Your task to perform on an android device: open sync settings in chrome Image 0: 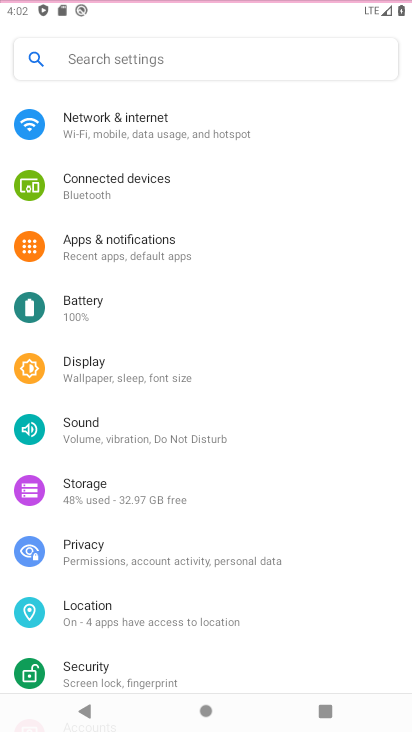
Step 0: drag from (239, 582) to (165, 80)
Your task to perform on an android device: open sync settings in chrome Image 1: 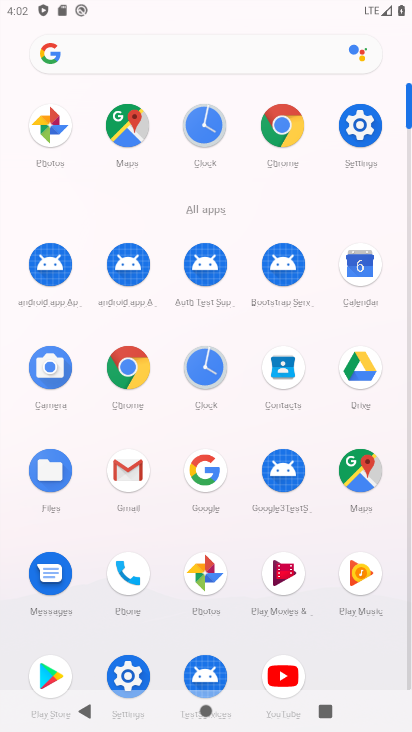
Step 1: click (280, 123)
Your task to perform on an android device: open sync settings in chrome Image 2: 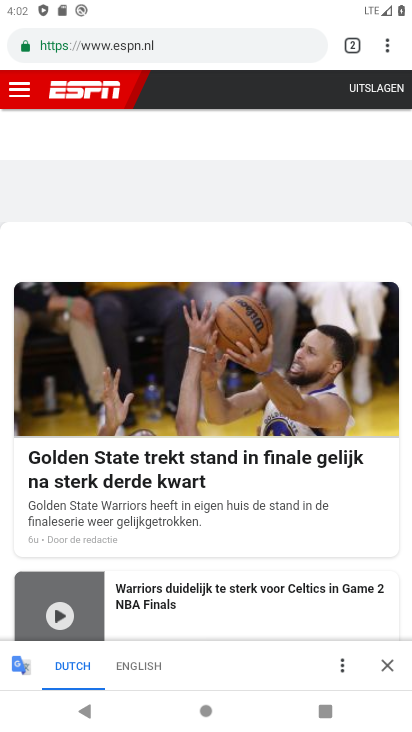
Step 2: drag from (377, 37) to (221, 591)
Your task to perform on an android device: open sync settings in chrome Image 3: 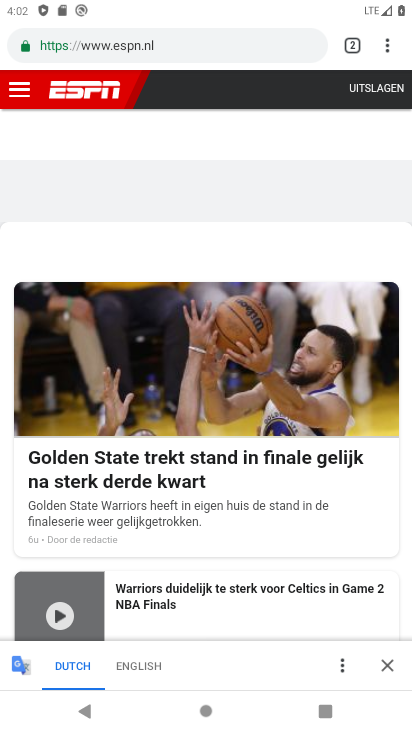
Step 3: click (221, 591)
Your task to perform on an android device: open sync settings in chrome Image 4: 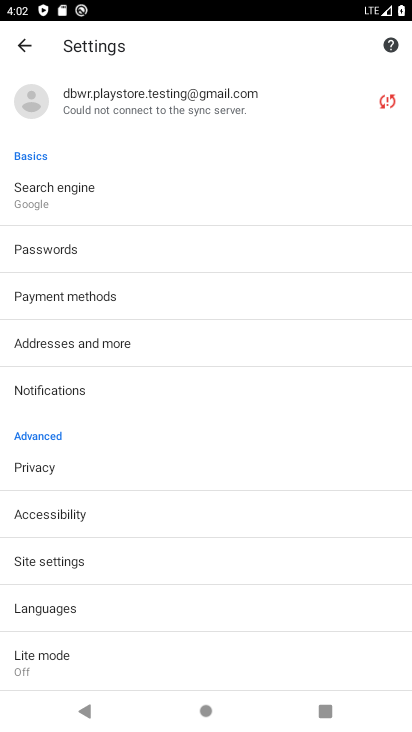
Step 4: click (25, 550)
Your task to perform on an android device: open sync settings in chrome Image 5: 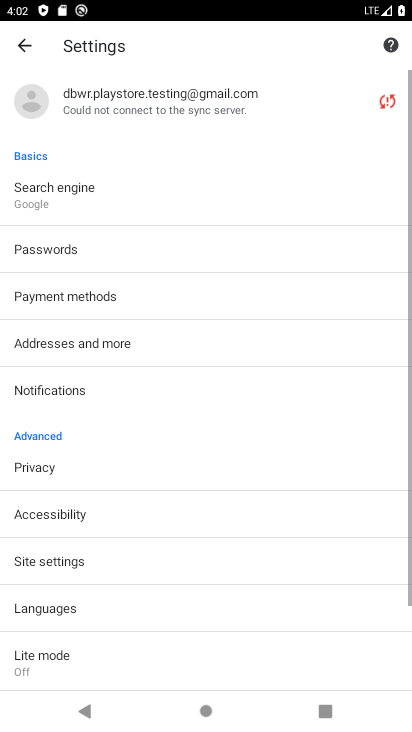
Step 5: click (33, 560)
Your task to perform on an android device: open sync settings in chrome Image 6: 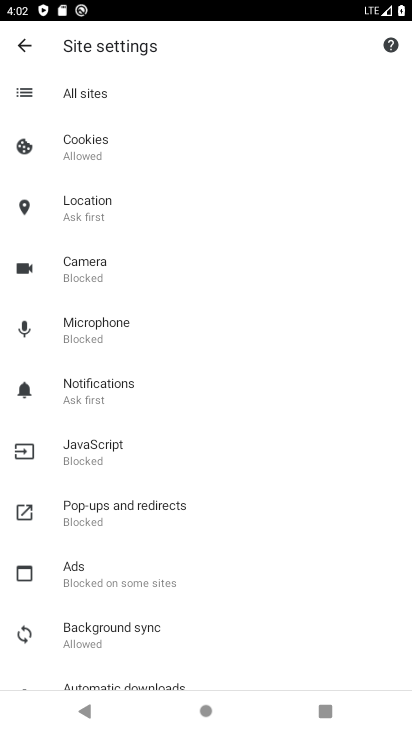
Step 6: click (96, 627)
Your task to perform on an android device: open sync settings in chrome Image 7: 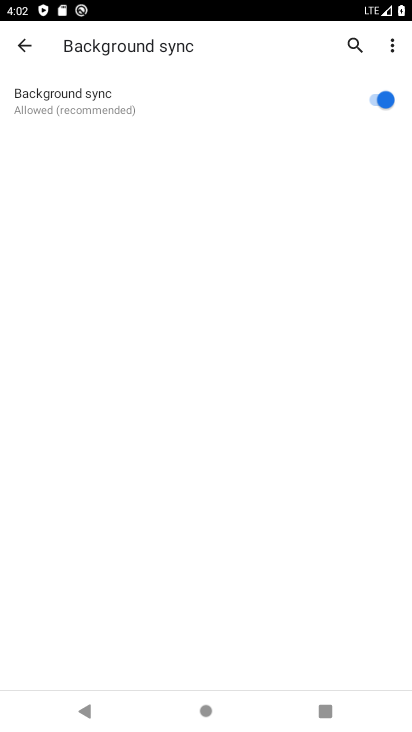
Step 7: task complete